Your task to perform on an android device: Check the weather Image 0: 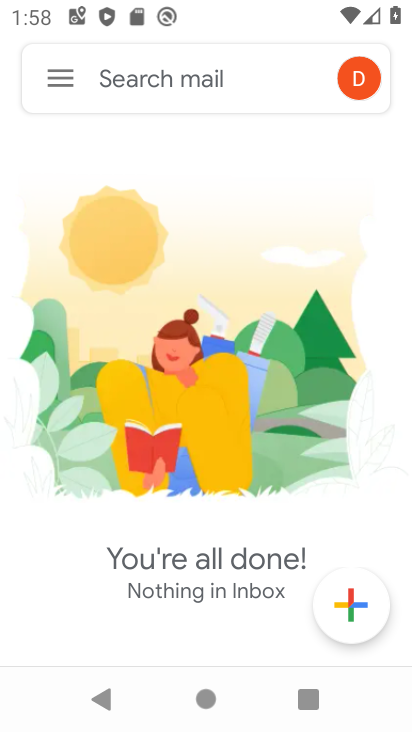
Step 0: press home button
Your task to perform on an android device: Check the weather Image 1: 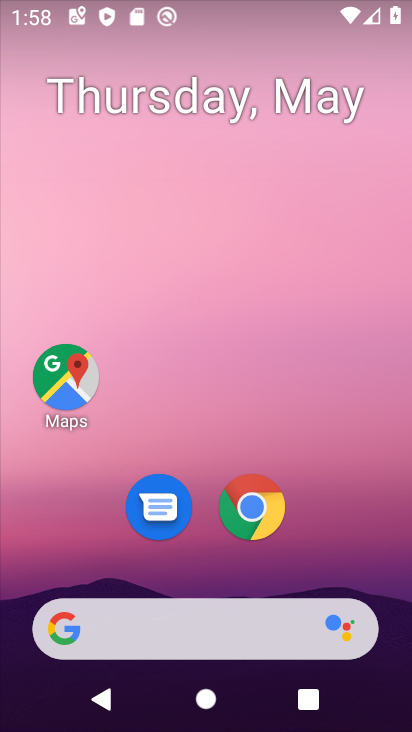
Step 1: drag from (203, 567) to (234, 59)
Your task to perform on an android device: Check the weather Image 2: 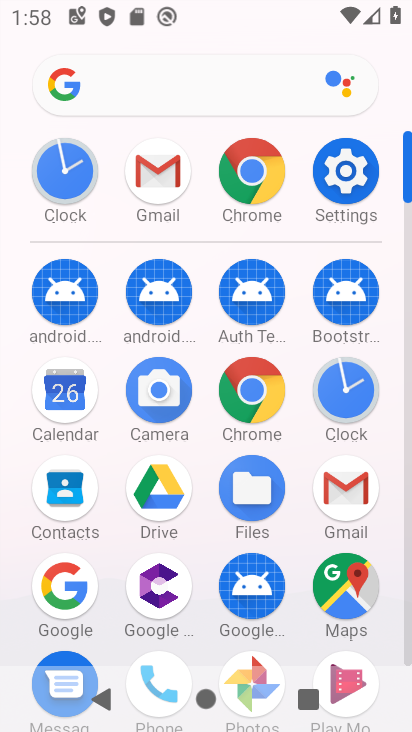
Step 2: click (259, 390)
Your task to perform on an android device: Check the weather Image 3: 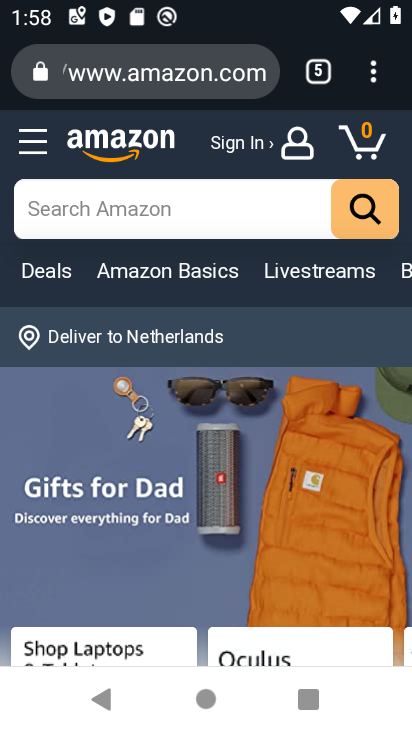
Step 3: click (243, 74)
Your task to perform on an android device: Check the weather Image 4: 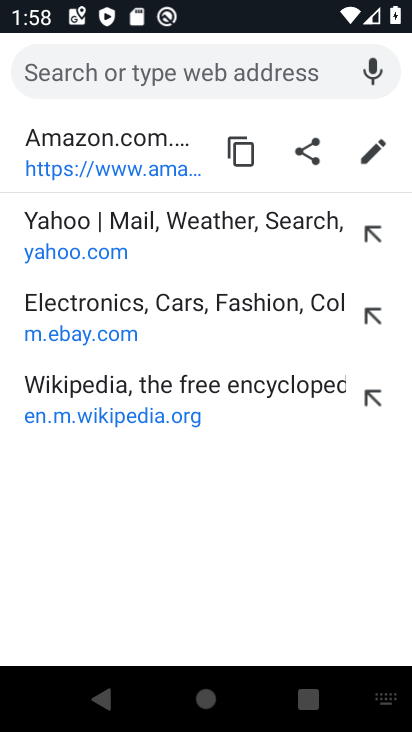
Step 4: type "check the weather"
Your task to perform on an android device: Check the weather Image 5: 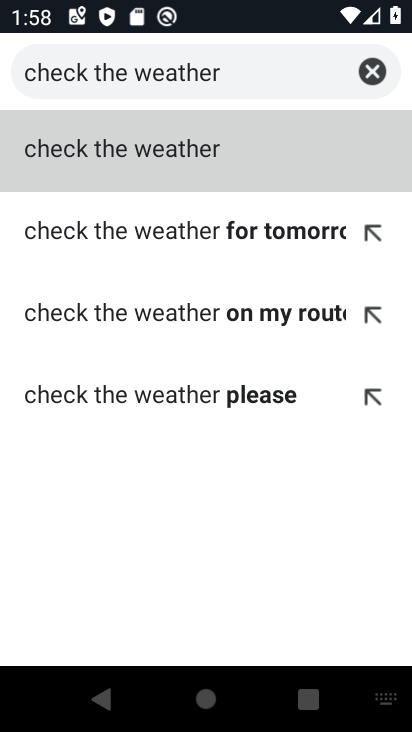
Step 5: click (222, 145)
Your task to perform on an android device: Check the weather Image 6: 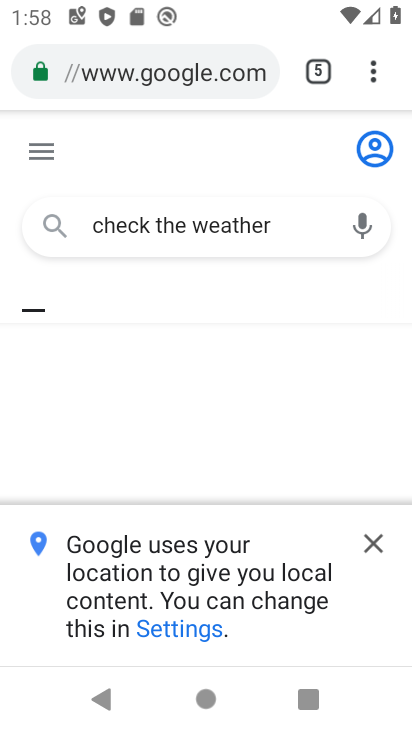
Step 6: click (374, 547)
Your task to perform on an android device: Check the weather Image 7: 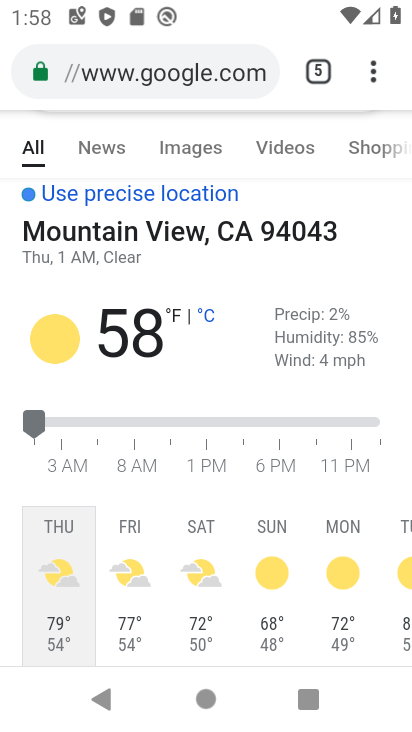
Step 7: task complete